Your task to perform on an android device: Go to sound settings Image 0: 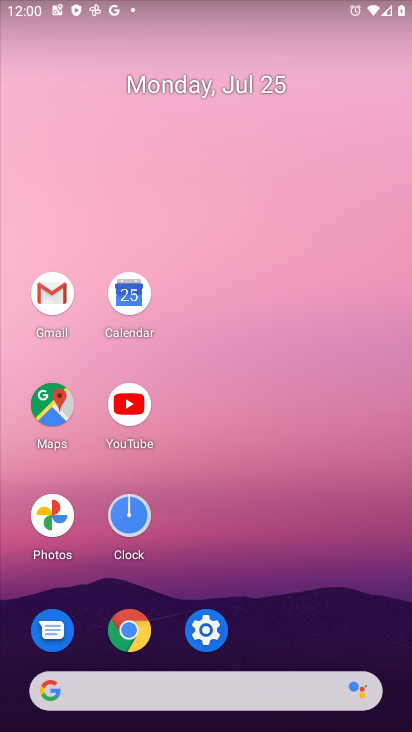
Step 0: click (199, 631)
Your task to perform on an android device: Go to sound settings Image 1: 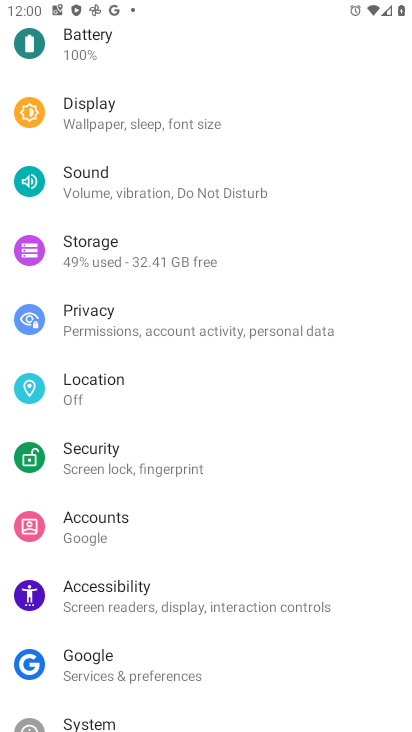
Step 1: click (89, 172)
Your task to perform on an android device: Go to sound settings Image 2: 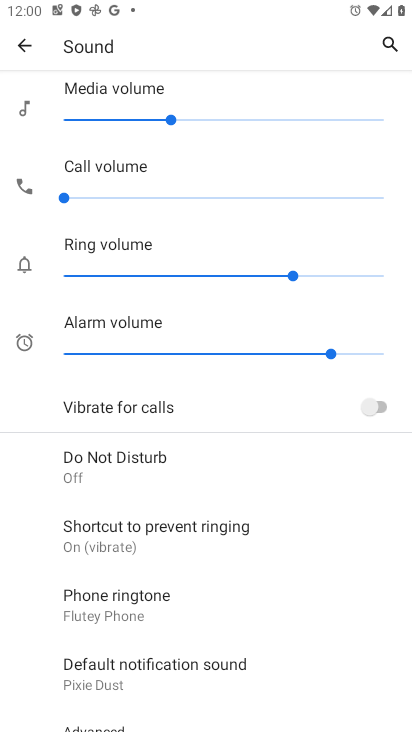
Step 2: task complete